Your task to perform on an android device: change timer sound Image 0: 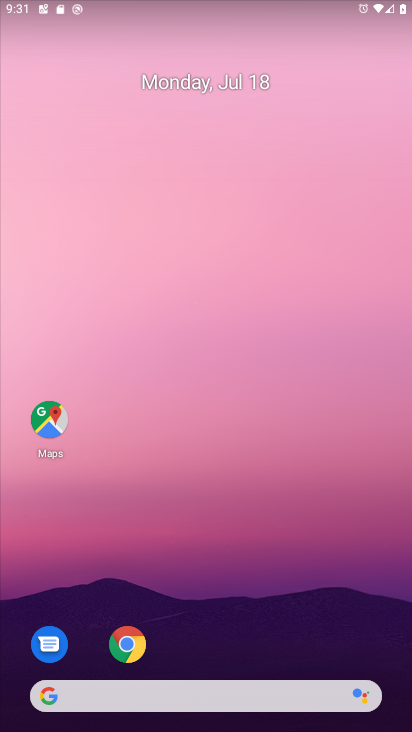
Step 0: drag from (238, 655) to (262, 225)
Your task to perform on an android device: change timer sound Image 1: 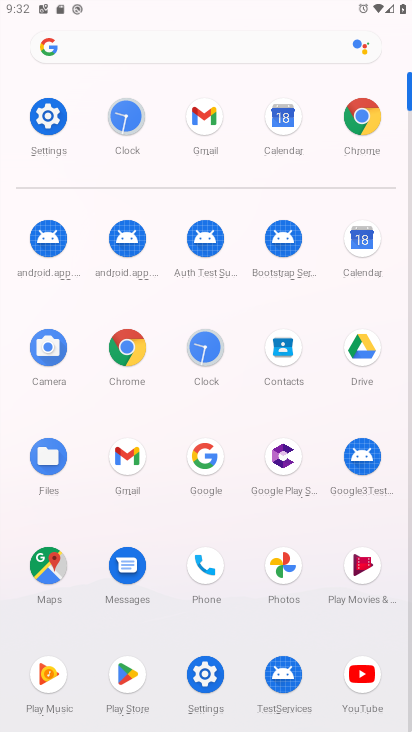
Step 1: click (199, 707)
Your task to perform on an android device: change timer sound Image 2: 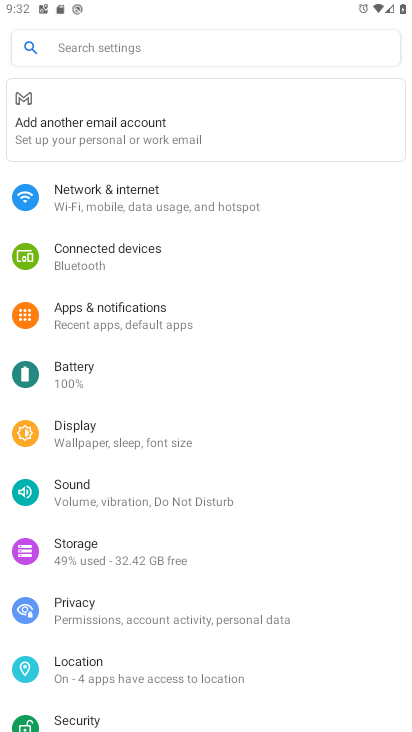
Step 2: press home button
Your task to perform on an android device: change timer sound Image 3: 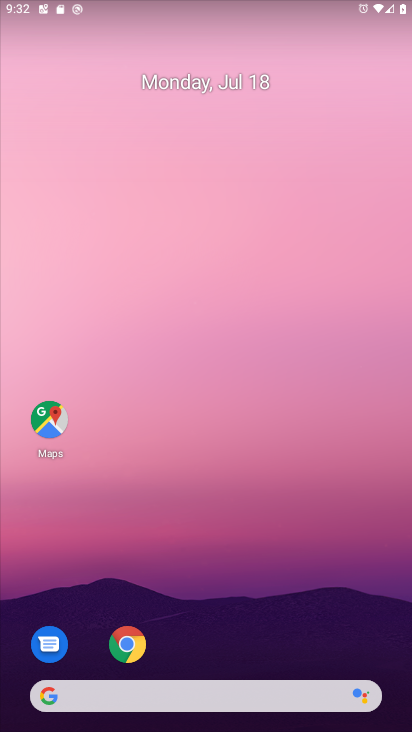
Step 3: drag from (232, 674) to (200, 143)
Your task to perform on an android device: change timer sound Image 4: 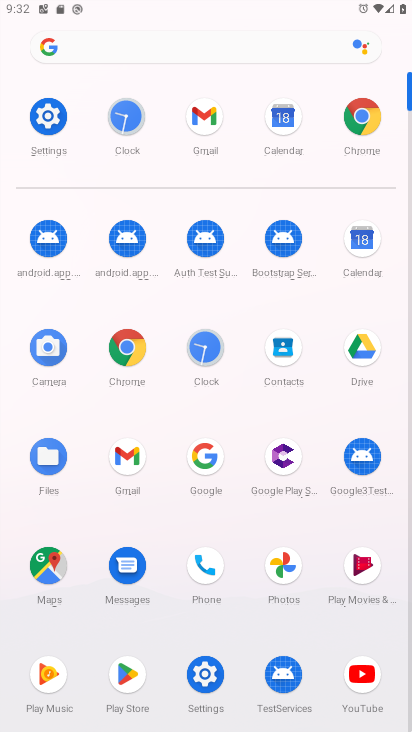
Step 4: click (206, 341)
Your task to perform on an android device: change timer sound Image 5: 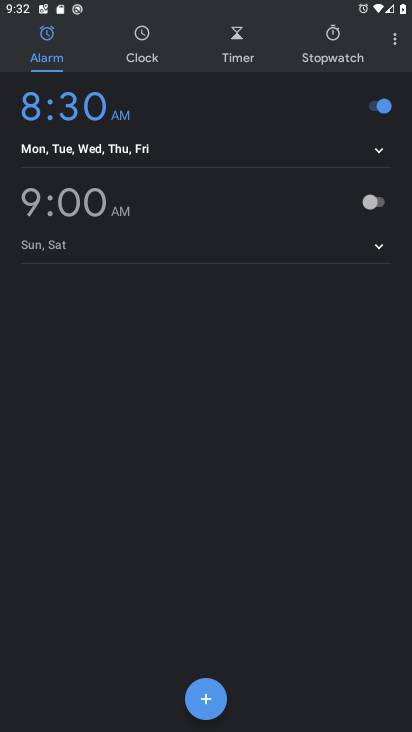
Step 5: task complete